Your task to perform on an android device: Open the web browser Image 0: 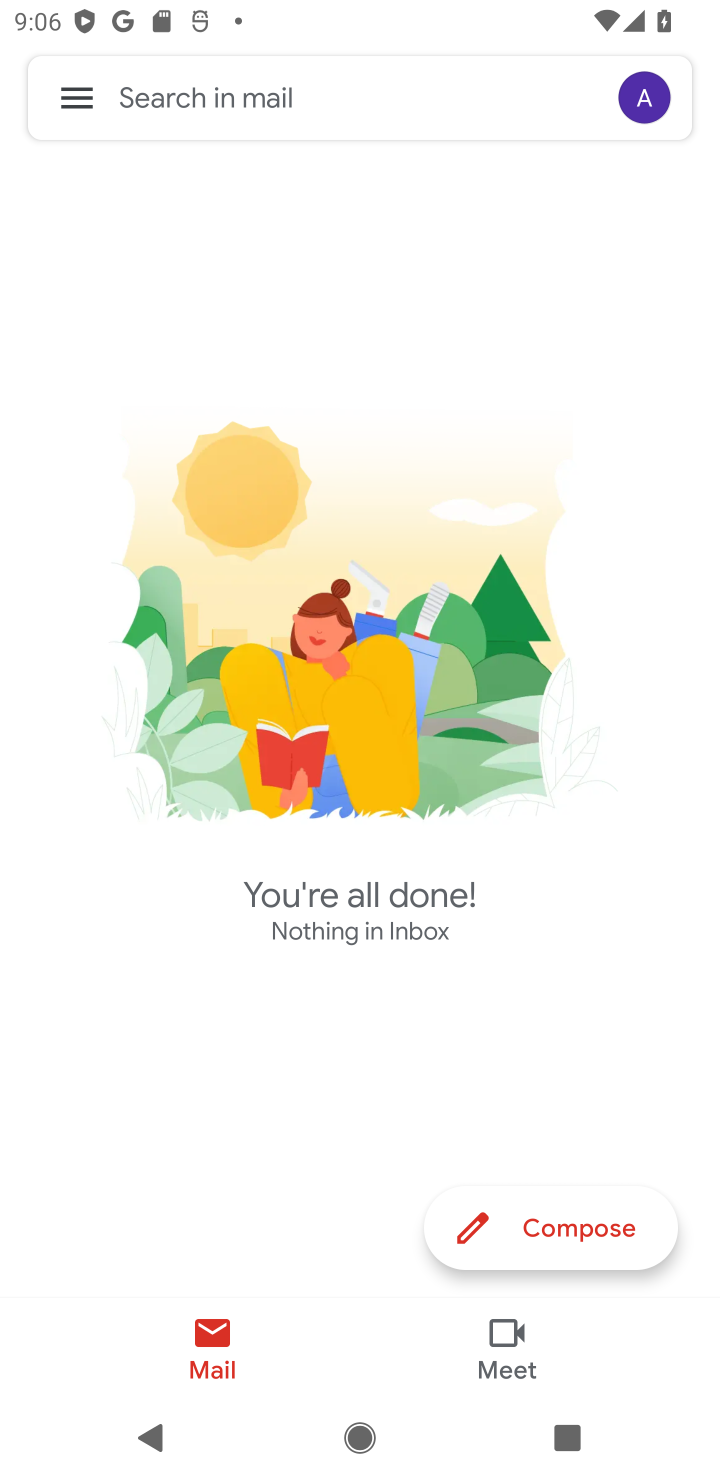
Step 0: press home button
Your task to perform on an android device: Open the web browser Image 1: 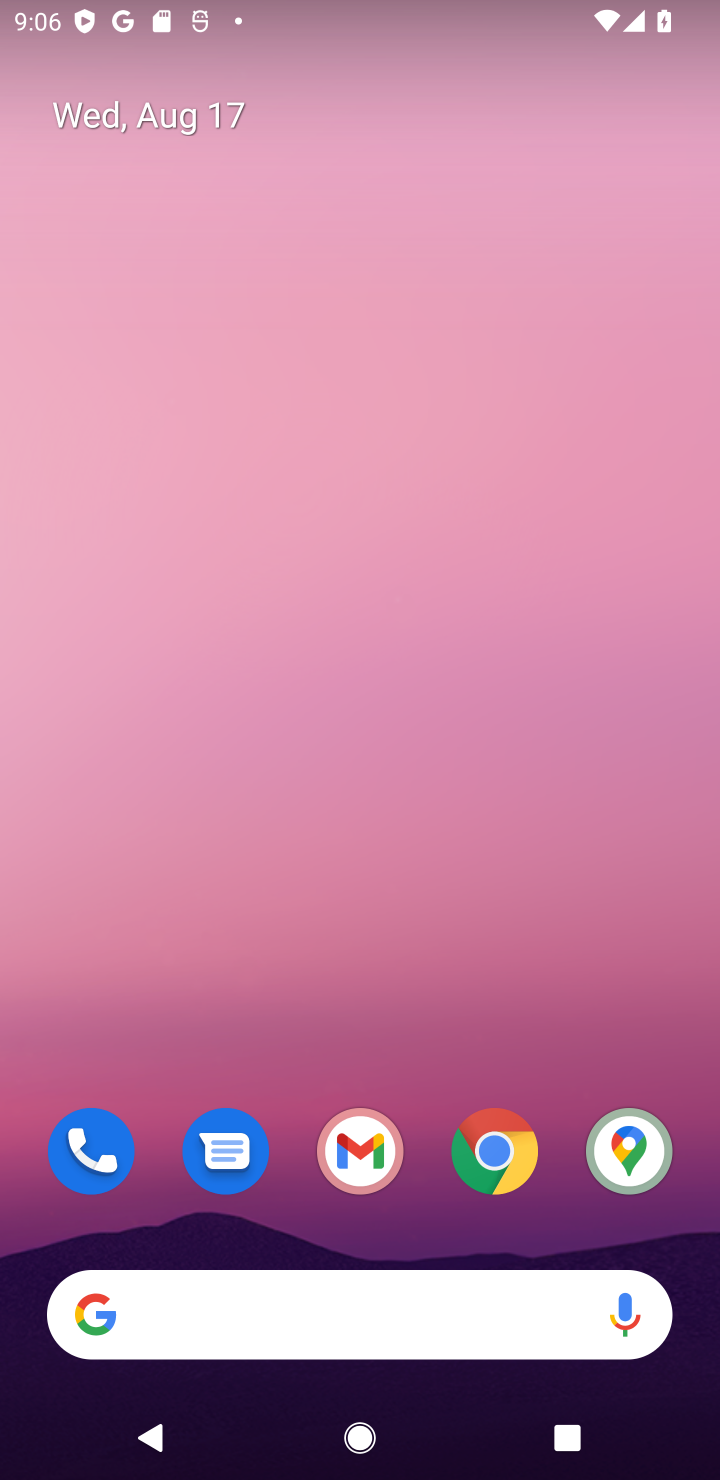
Step 1: click (496, 1160)
Your task to perform on an android device: Open the web browser Image 2: 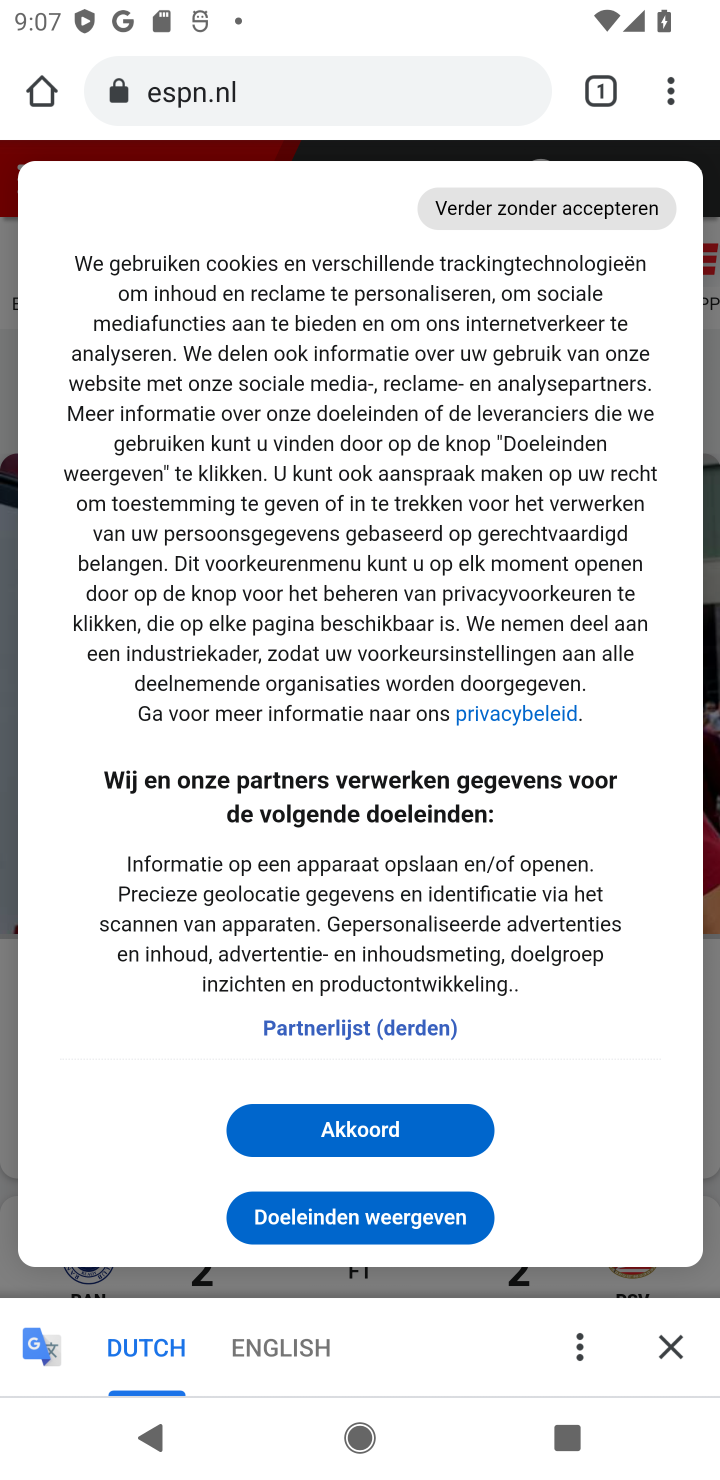
Step 2: task complete